Your task to perform on an android device: see creations saved in the google photos Image 0: 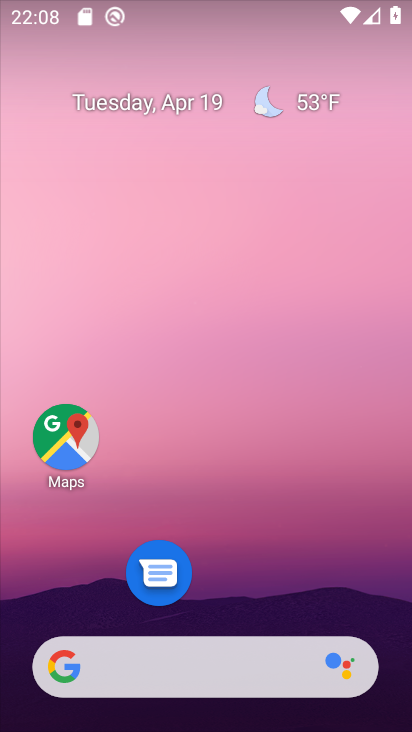
Step 0: drag from (227, 599) to (273, 64)
Your task to perform on an android device: see creations saved in the google photos Image 1: 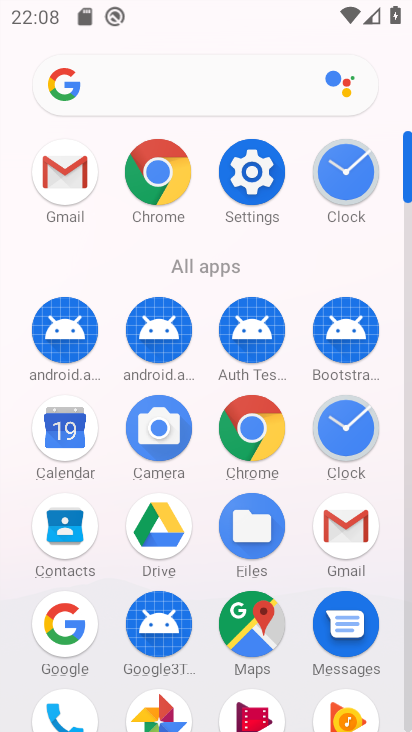
Step 1: drag from (201, 565) to (252, 172)
Your task to perform on an android device: see creations saved in the google photos Image 2: 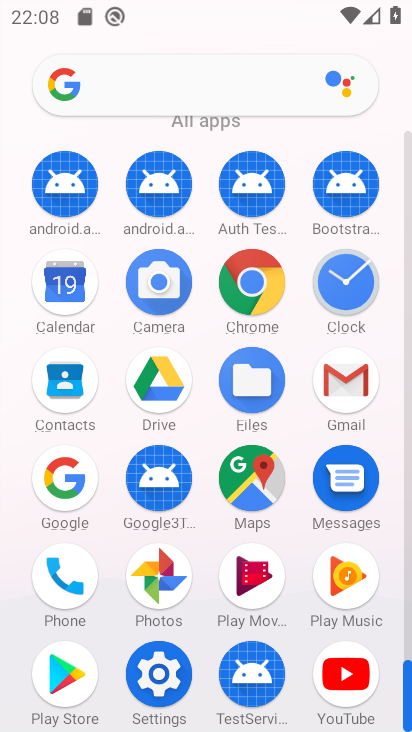
Step 2: click (153, 568)
Your task to perform on an android device: see creations saved in the google photos Image 3: 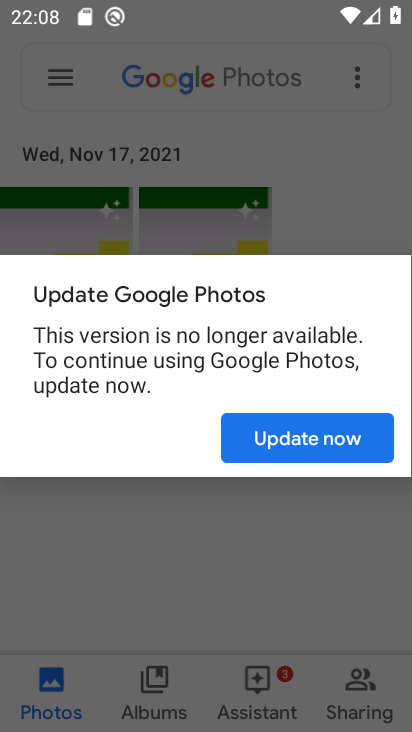
Step 3: click (315, 436)
Your task to perform on an android device: see creations saved in the google photos Image 4: 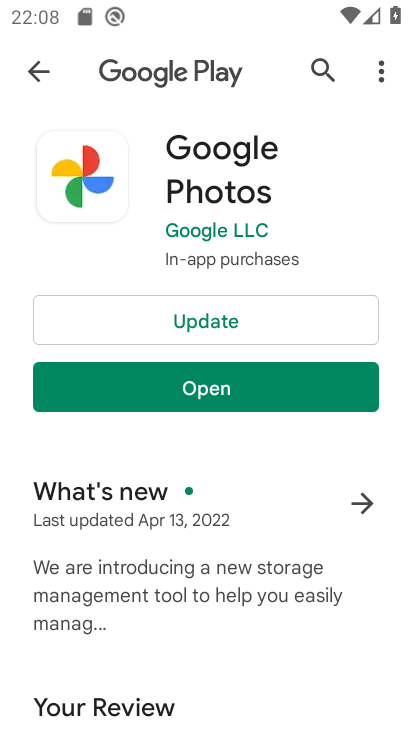
Step 4: click (233, 321)
Your task to perform on an android device: see creations saved in the google photos Image 5: 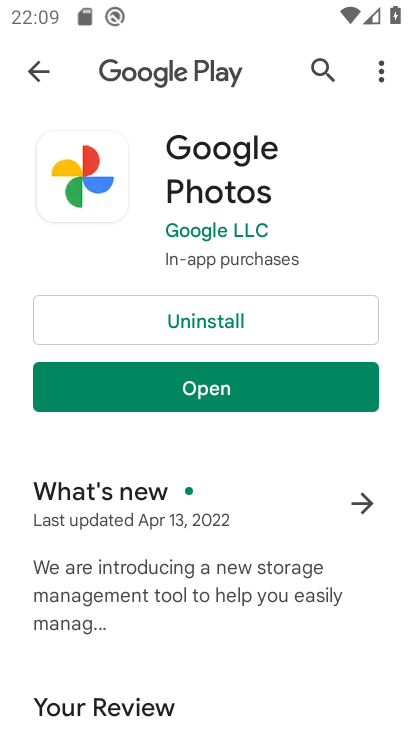
Step 5: click (211, 392)
Your task to perform on an android device: see creations saved in the google photos Image 6: 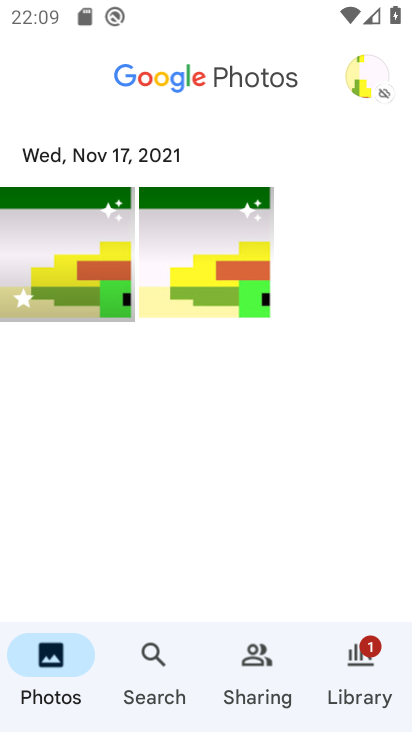
Step 6: click (85, 257)
Your task to perform on an android device: see creations saved in the google photos Image 7: 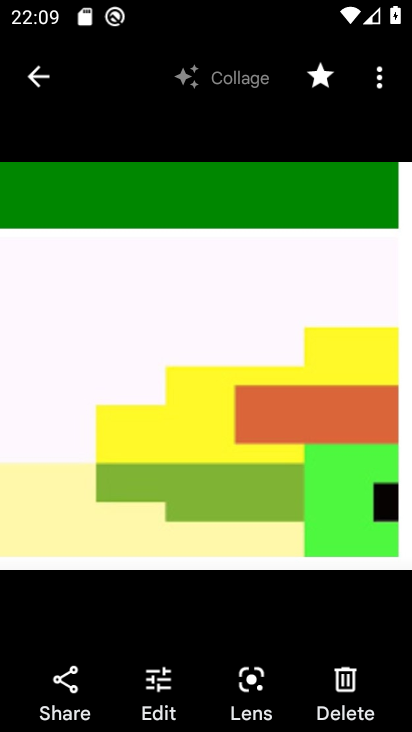
Step 7: click (28, 65)
Your task to perform on an android device: see creations saved in the google photos Image 8: 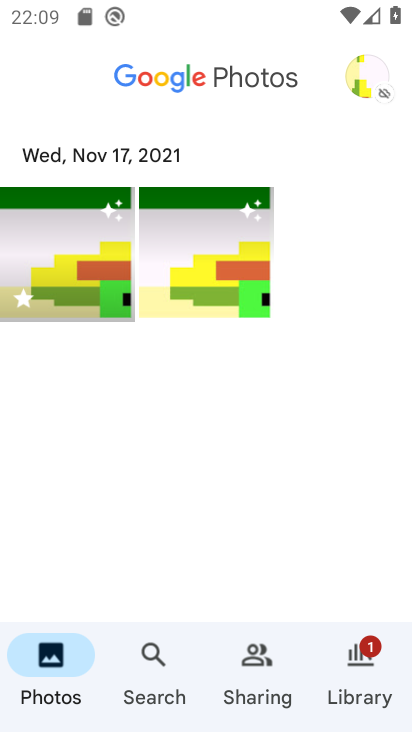
Step 8: click (139, 655)
Your task to perform on an android device: see creations saved in the google photos Image 9: 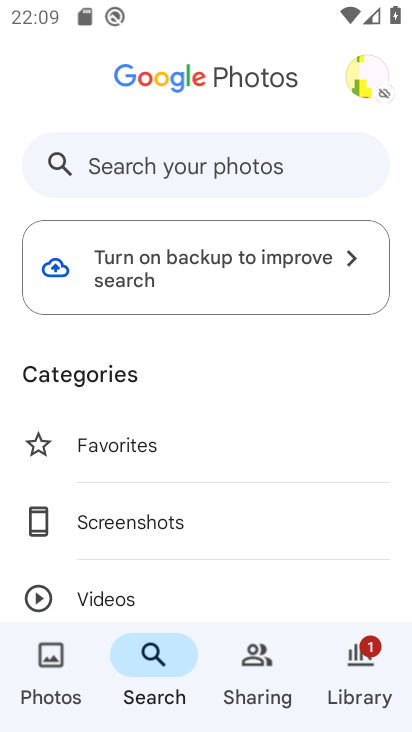
Step 9: click (153, 156)
Your task to perform on an android device: see creations saved in the google photos Image 10: 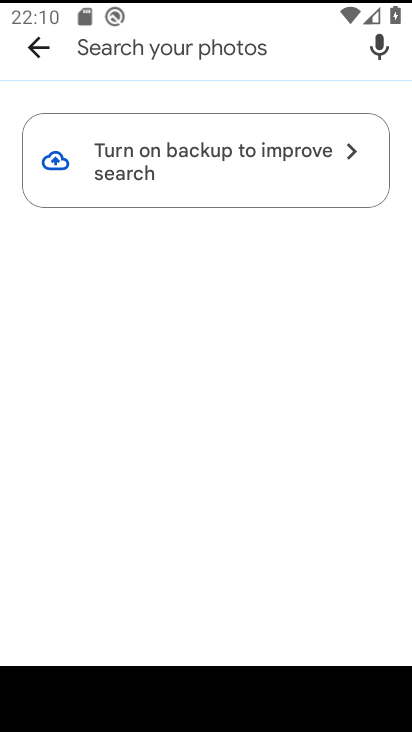
Step 10: type "creation"
Your task to perform on an android device: see creations saved in the google photos Image 11: 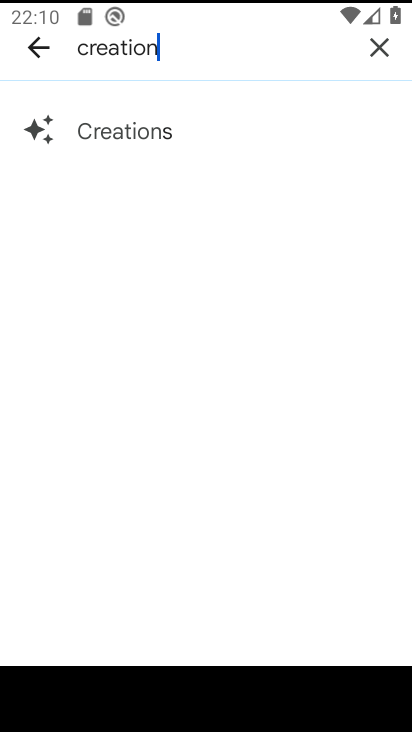
Step 11: click (135, 130)
Your task to perform on an android device: see creations saved in the google photos Image 12: 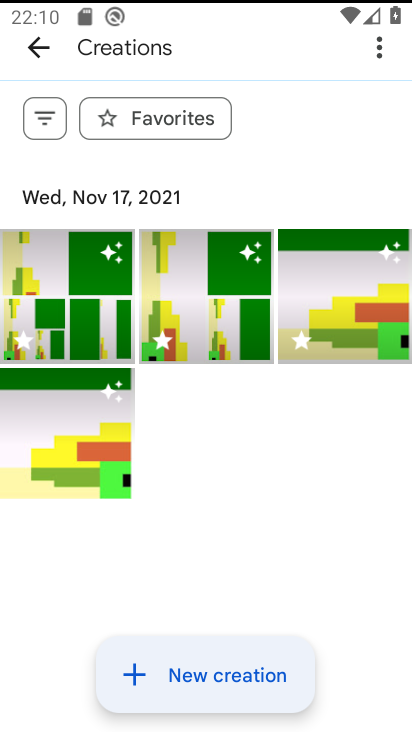
Step 12: task complete